Your task to perform on an android device: Go to battery settings Image 0: 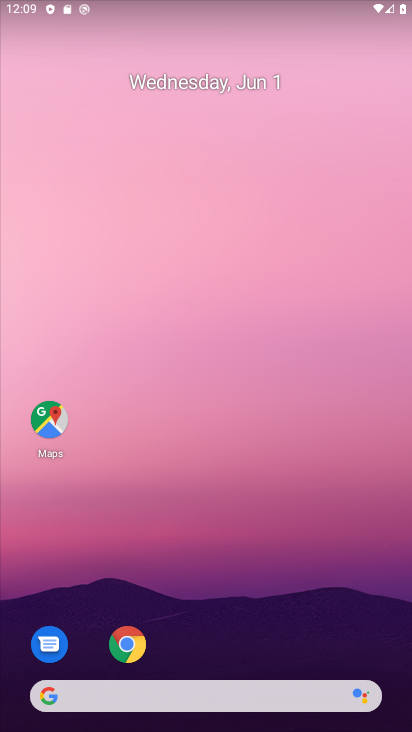
Step 0: drag from (319, 640) to (400, 450)
Your task to perform on an android device: Go to battery settings Image 1: 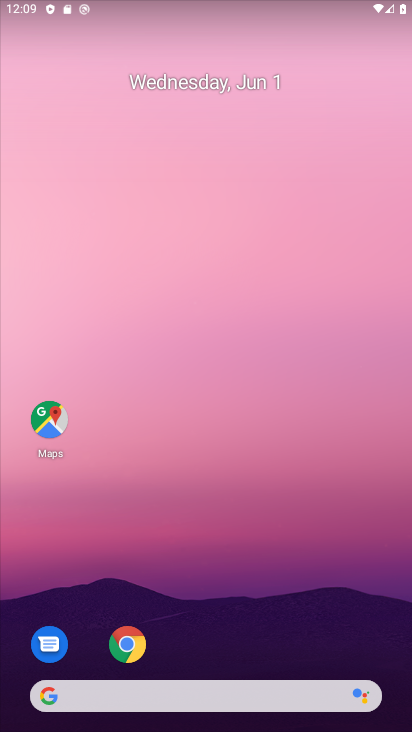
Step 1: drag from (262, 326) to (262, 48)
Your task to perform on an android device: Go to battery settings Image 2: 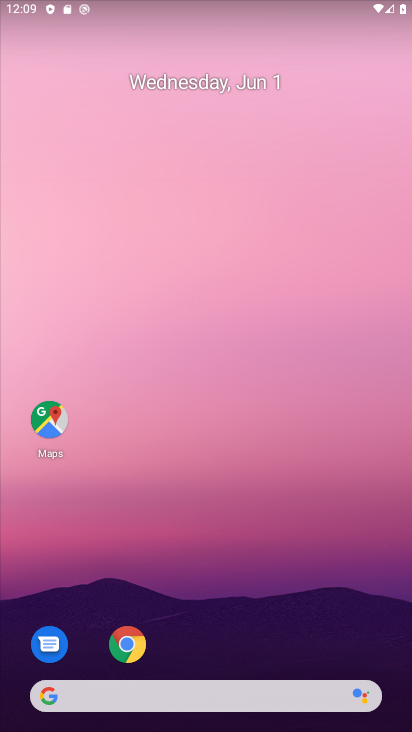
Step 2: drag from (321, 644) to (0, 13)
Your task to perform on an android device: Go to battery settings Image 3: 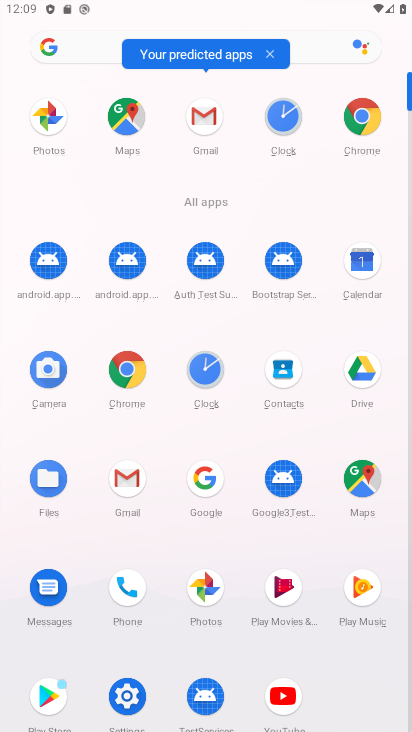
Step 3: click (121, 705)
Your task to perform on an android device: Go to battery settings Image 4: 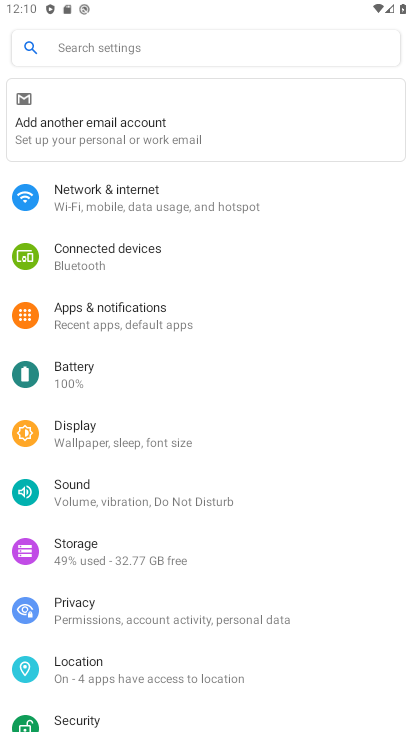
Step 4: click (71, 380)
Your task to perform on an android device: Go to battery settings Image 5: 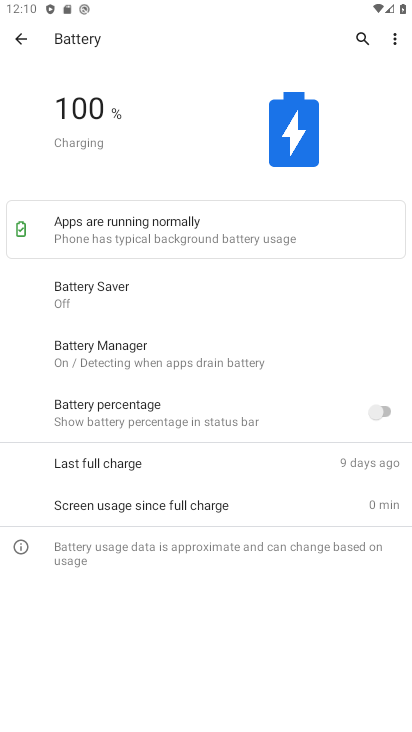
Step 5: task complete